Your task to perform on an android device: install app "Flipkart Online Shopping App" Image 0: 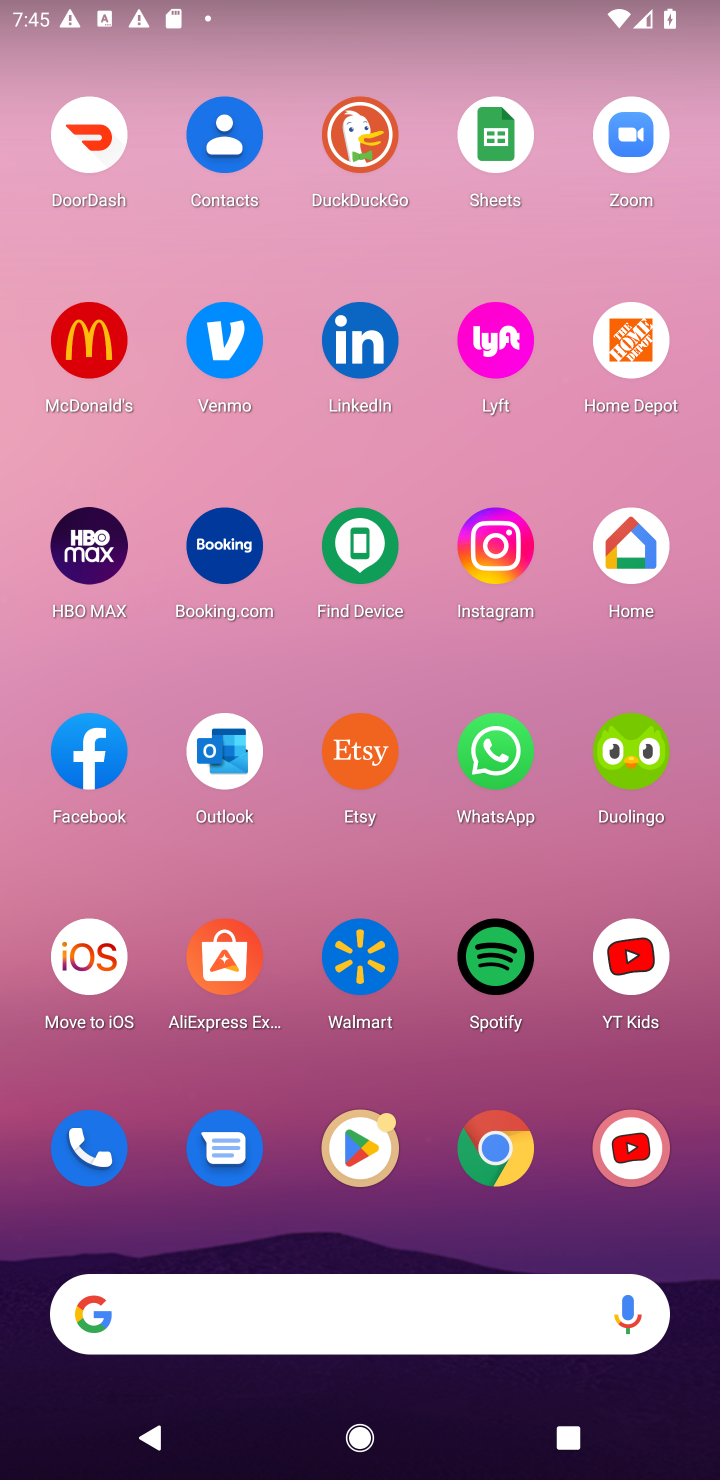
Step 0: drag from (400, 1040) to (497, 291)
Your task to perform on an android device: install app "Flipkart Online Shopping App" Image 1: 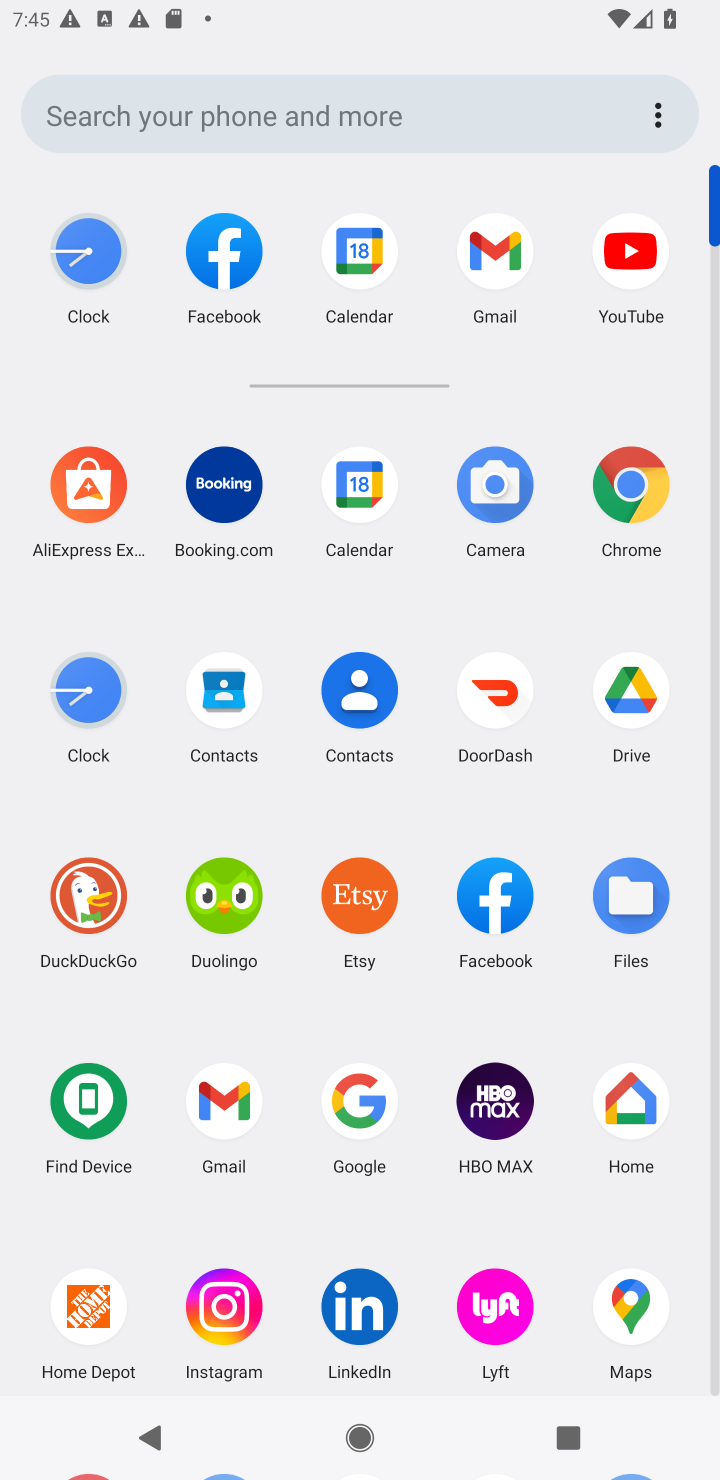
Step 1: drag from (389, 1037) to (451, 221)
Your task to perform on an android device: install app "Flipkart Online Shopping App" Image 2: 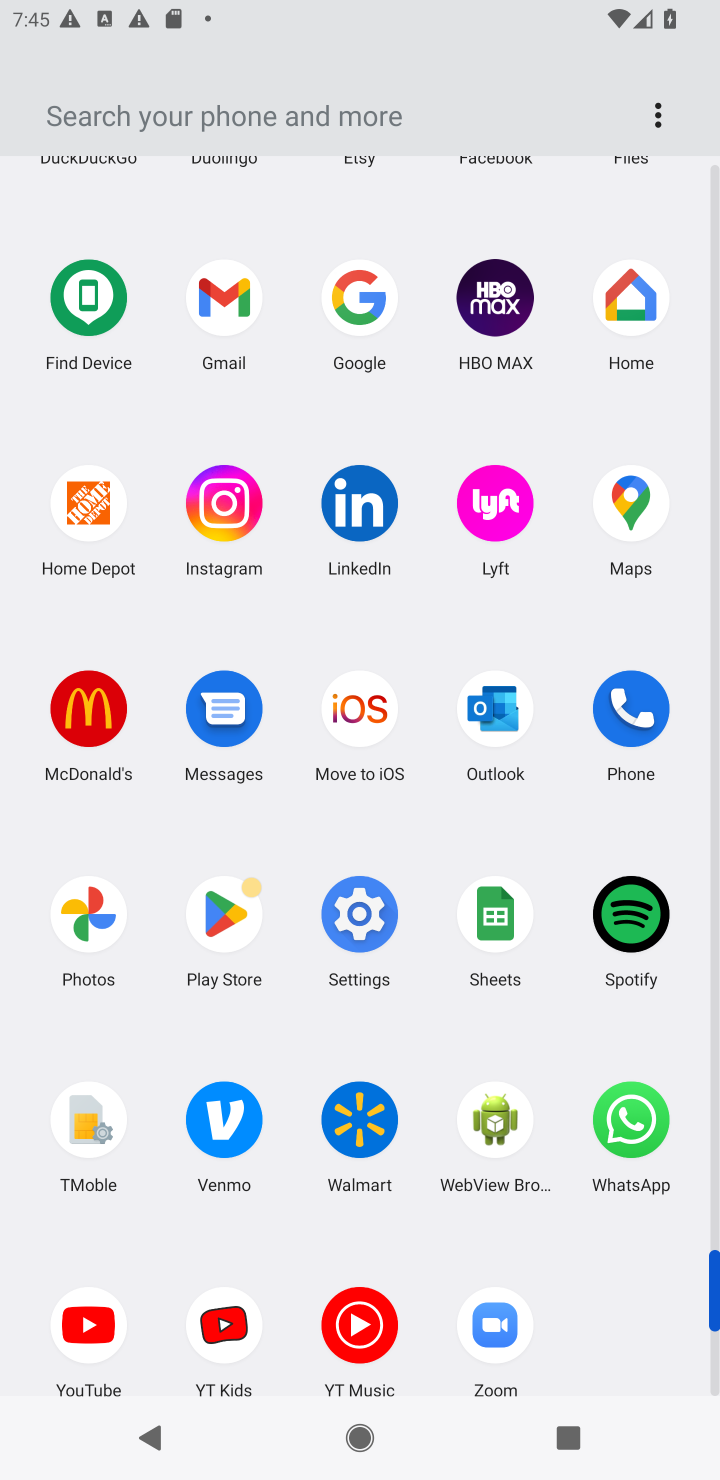
Step 2: click (218, 933)
Your task to perform on an android device: install app "Flipkart Online Shopping App" Image 3: 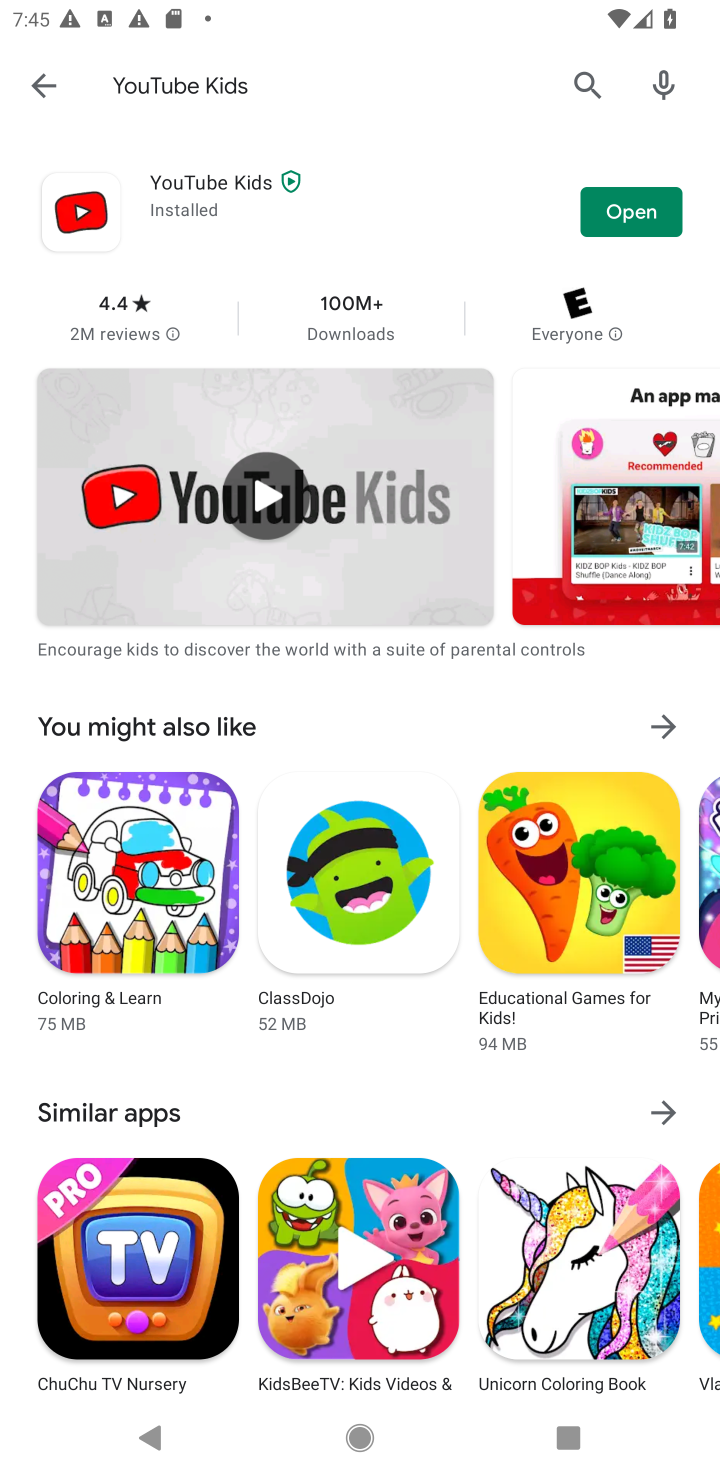
Step 3: press back button
Your task to perform on an android device: install app "Flipkart Online Shopping App" Image 4: 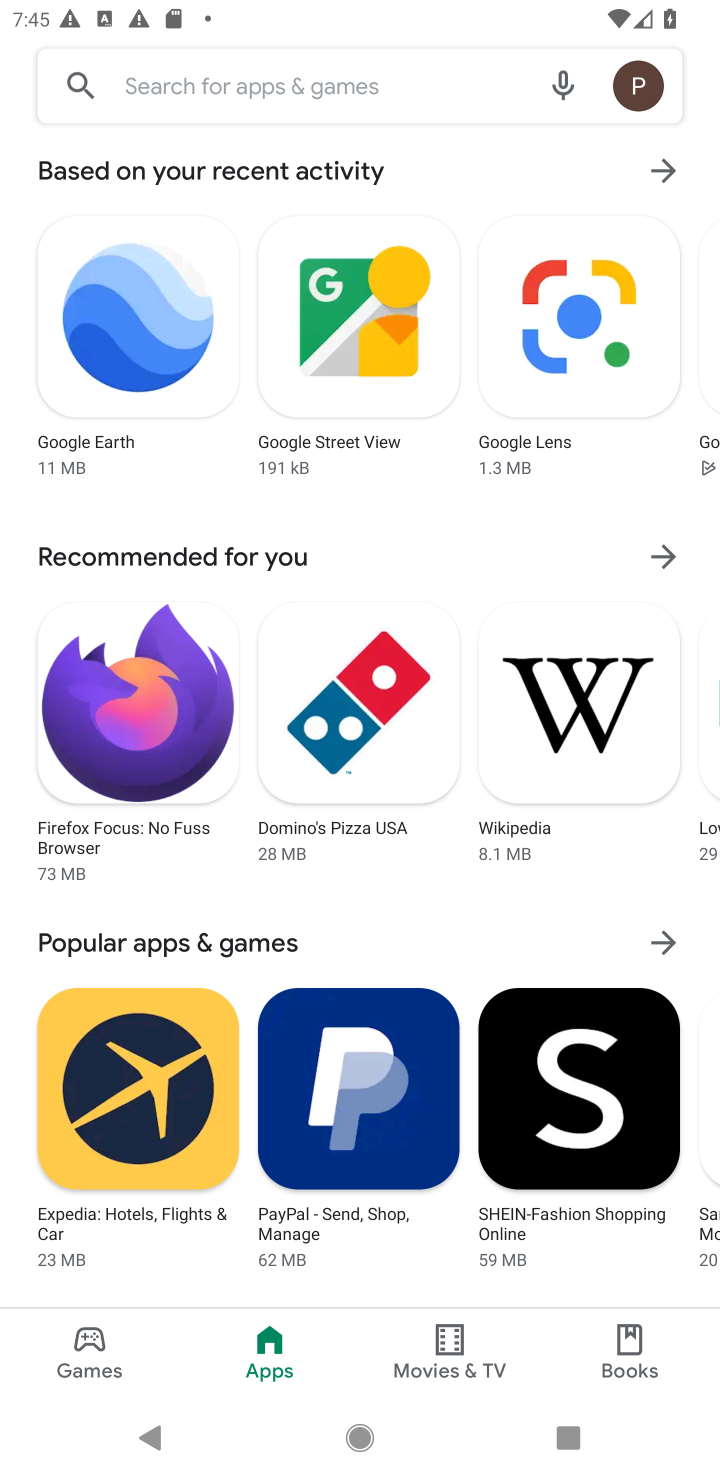
Step 4: click (199, 92)
Your task to perform on an android device: install app "Flipkart Online Shopping App" Image 5: 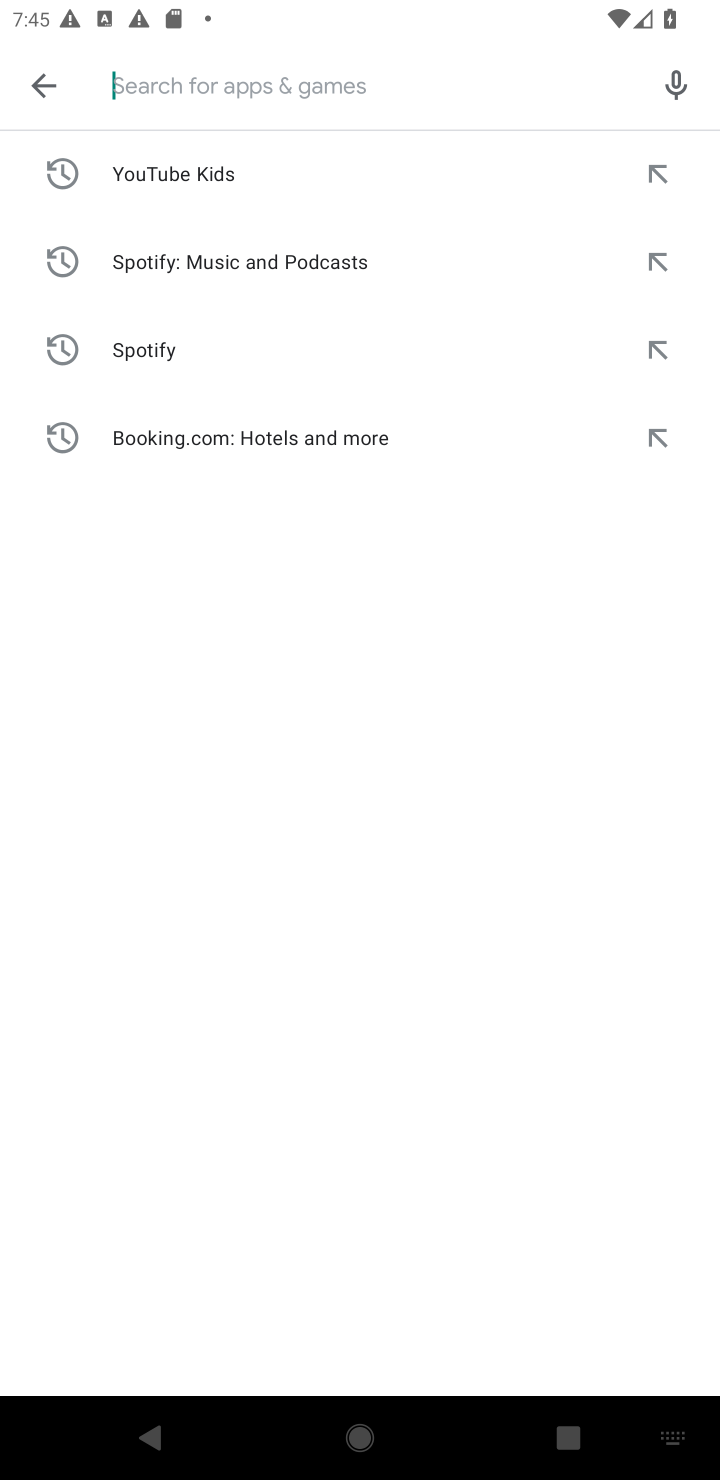
Step 5: type "Flipkart Online Shopping App"
Your task to perform on an android device: install app "Flipkart Online Shopping App" Image 6: 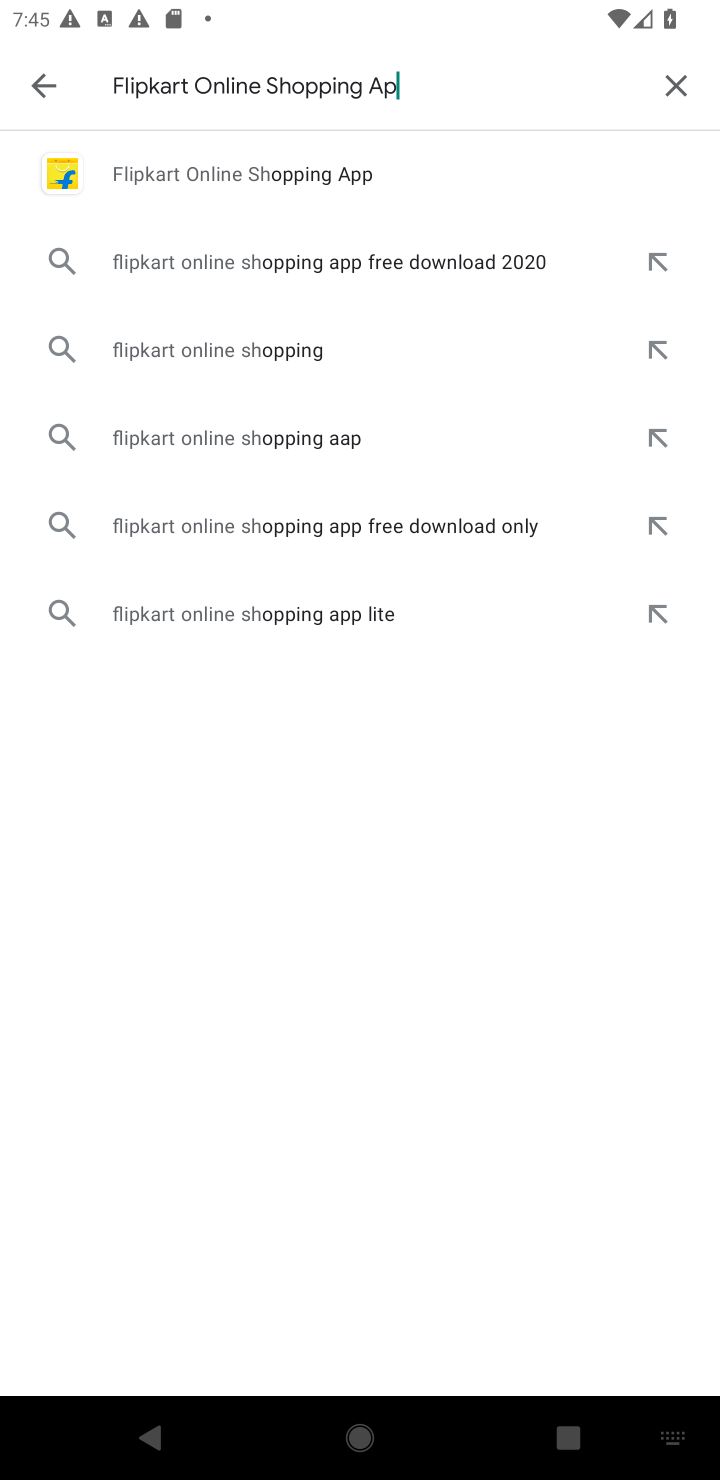
Step 6: press enter
Your task to perform on an android device: install app "Flipkart Online Shopping App" Image 7: 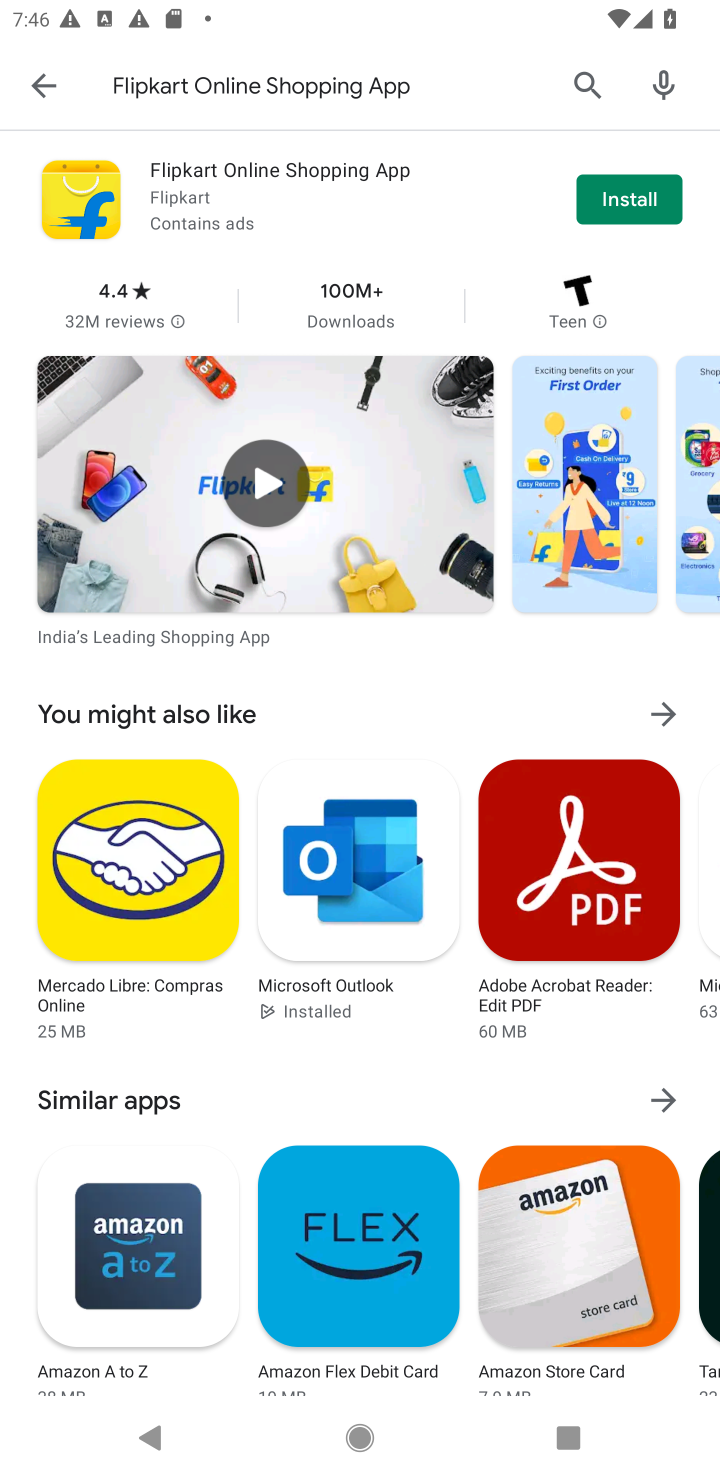
Step 7: click (626, 198)
Your task to perform on an android device: install app "Flipkart Online Shopping App" Image 8: 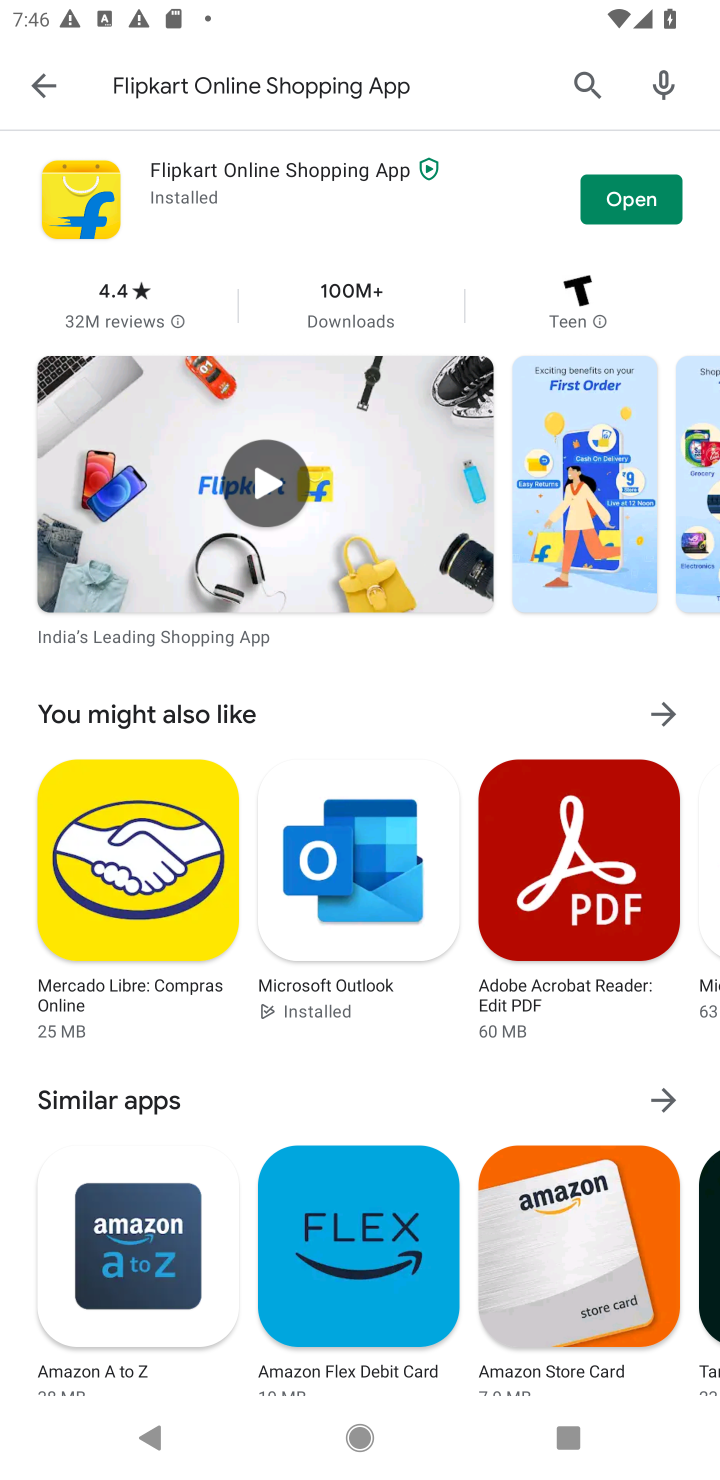
Step 8: click (651, 214)
Your task to perform on an android device: install app "Flipkart Online Shopping App" Image 9: 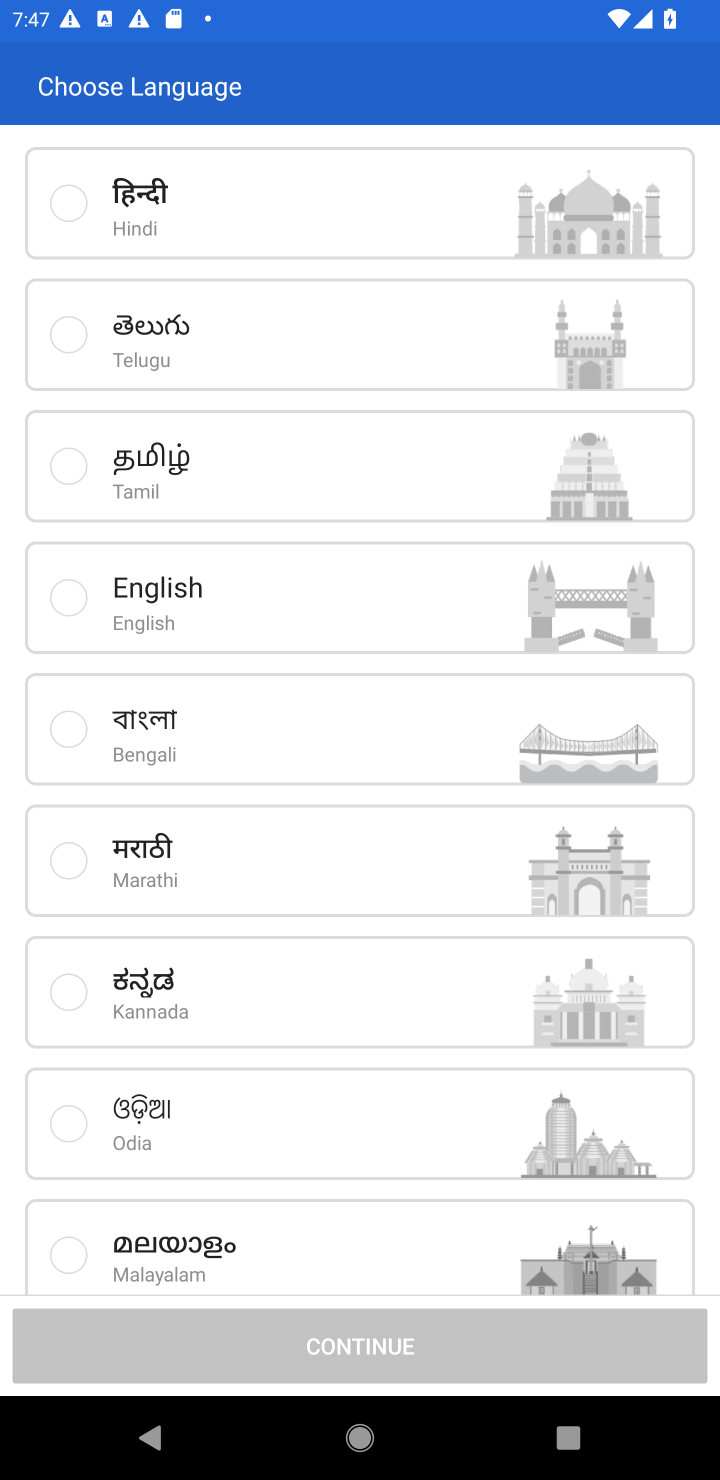
Step 9: task complete